Your task to perform on an android device: toggle improve location accuracy Image 0: 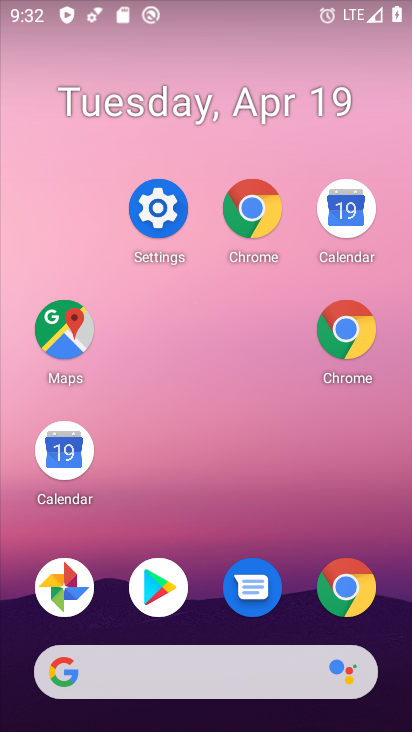
Step 0: click (162, 191)
Your task to perform on an android device: toggle improve location accuracy Image 1: 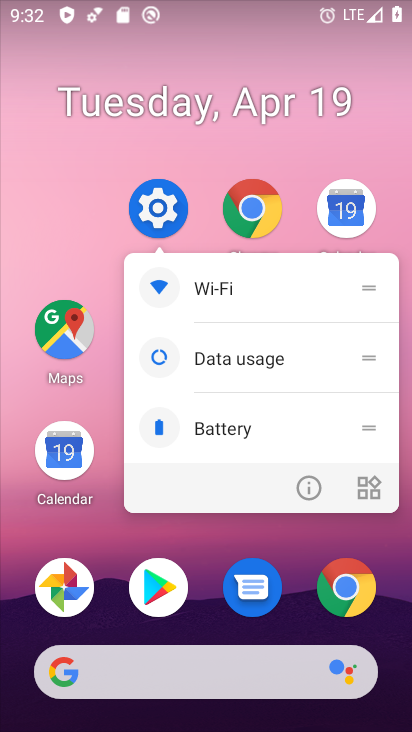
Step 1: click (162, 191)
Your task to perform on an android device: toggle improve location accuracy Image 2: 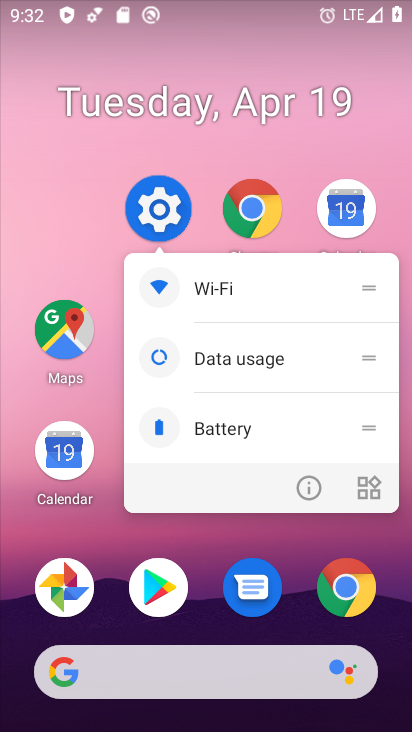
Step 2: click (168, 203)
Your task to perform on an android device: toggle improve location accuracy Image 3: 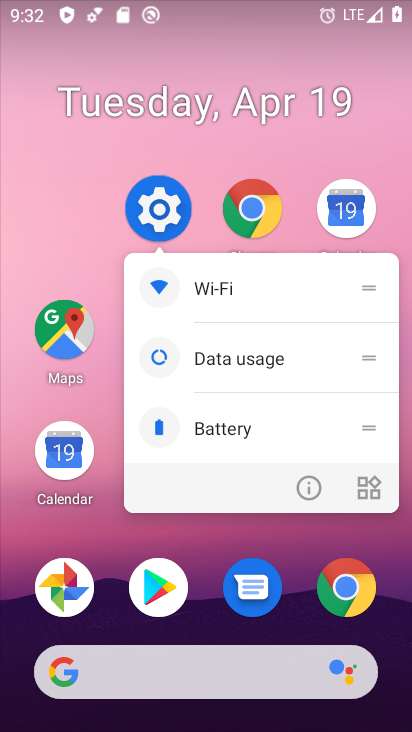
Step 3: click (168, 203)
Your task to perform on an android device: toggle improve location accuracy Image 4: 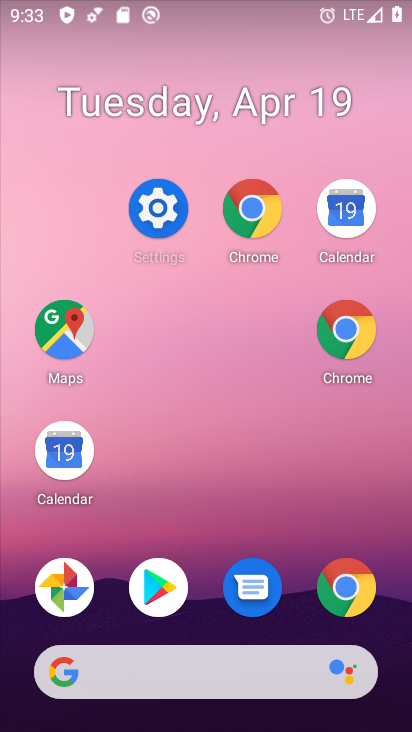
Step 4: click (156, 203)
Your task to perform on an android device: toggle improve location accuracy Image 5: 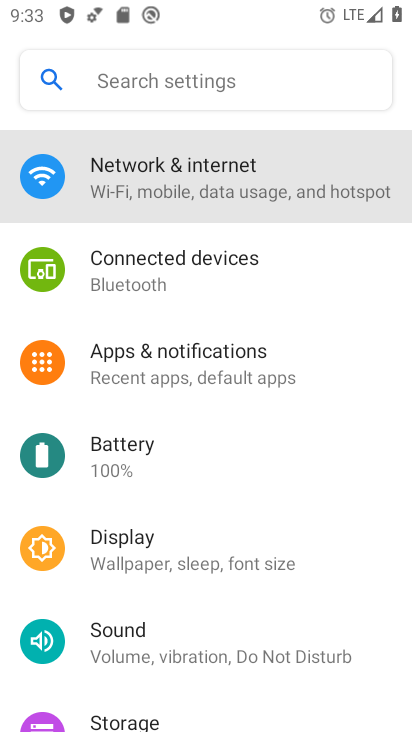
Step 5: click (156, 203)
Your task to perform on an android device: toggle improve location accuracy Image 6: 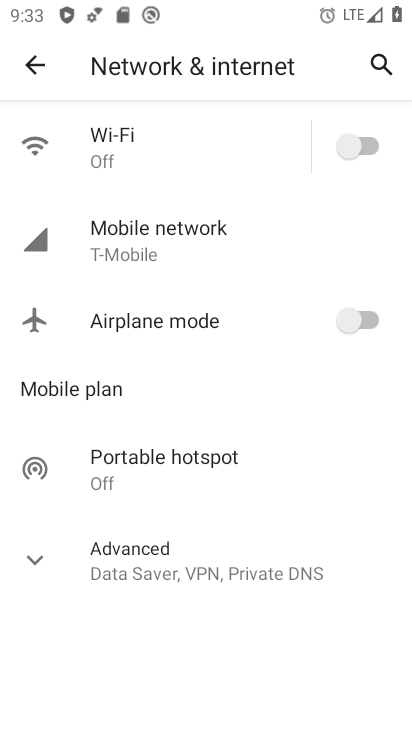
Step 6: click (33, 67)
Your task to perform on an android device: toggle improve location accuracy Image 7: 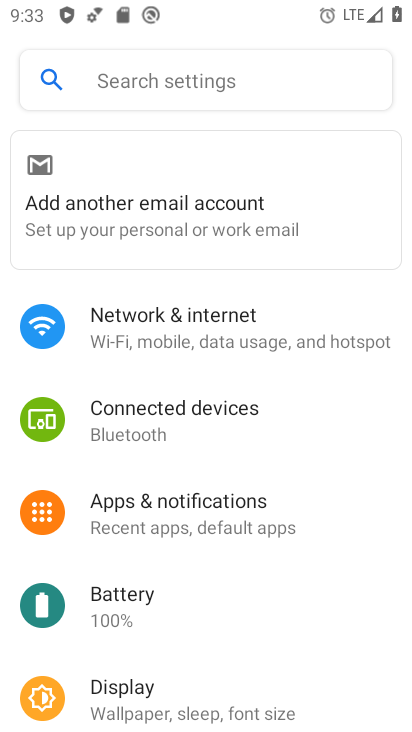
Step 7: drag from (205, 530) to (139, 157)
Your task to perform on an android device: toggle improve location accuracy Image 8: 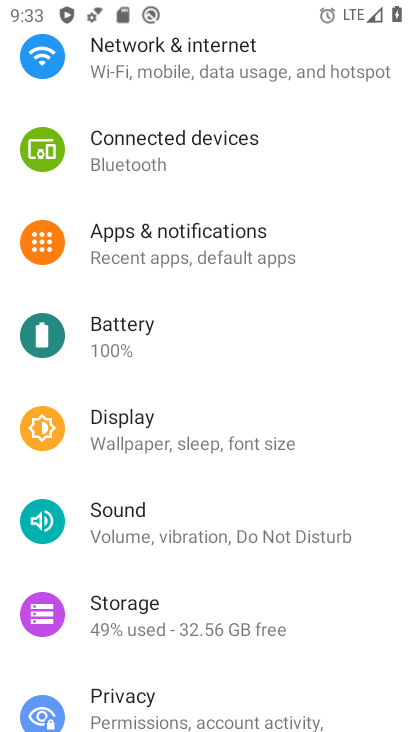
Step 8: drag from (174, 602) to (132, 253)
Your task to perform on an android device: toggle improve location accuracy Image 9: 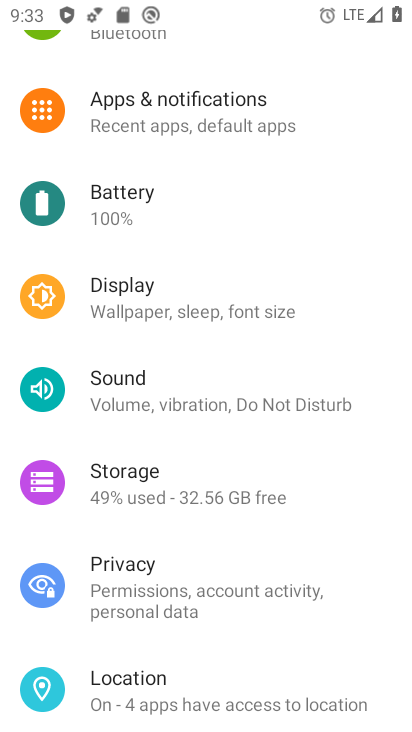
Step 9: click (147, 685)
Your task to perform on an android device: toggle improve location accuracy Image 10: 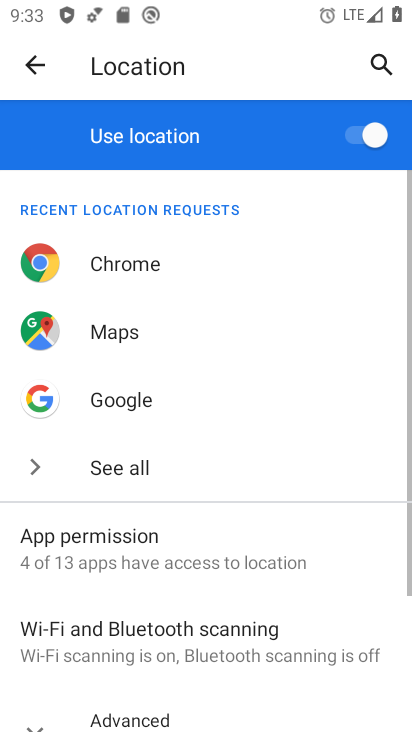
Step 10: drag from (188, 547) to (163, 153)
Your task to perform on an android device: toggle improve location accuracy Image 11: 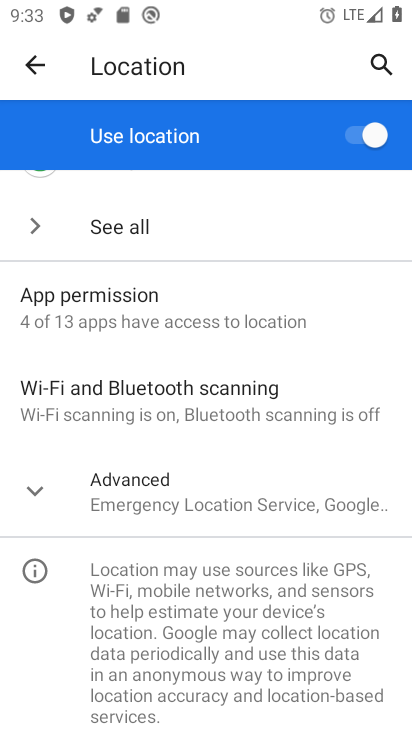
Step 11: click (132, 493)
Your task to perform on an android device: toggle improve location accuracy Image 12: 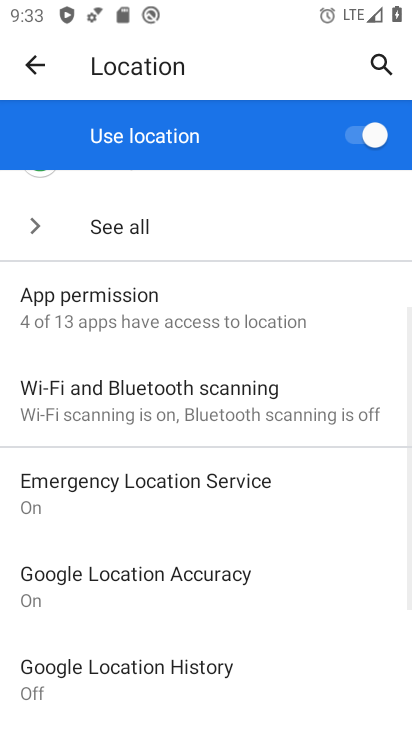
Step 12: drag from (191, 527) to (155, 47)
Your task to perform on an android device: toggle improve location accuracy Image 13: 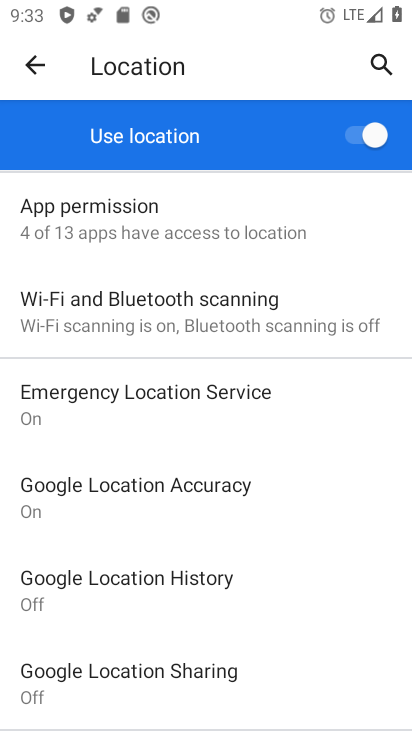
Step 13: click (147, 497)
Your task to perform on an android device: toggle improve location accuracy Image 14: 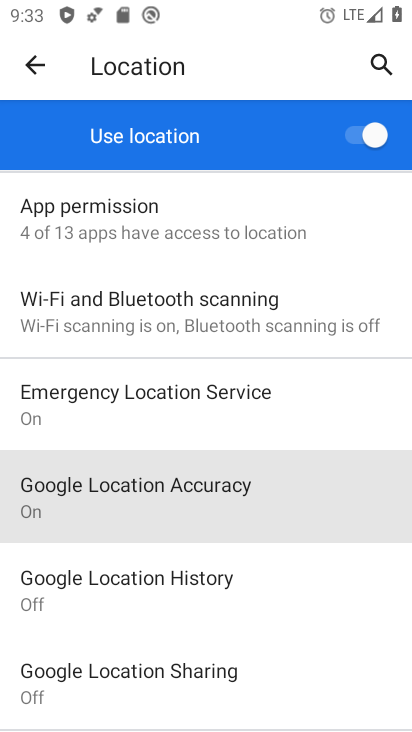
Step 14: click (141, 483)
Your task to perform on an android device: toggle improve location accuracy Image 15: 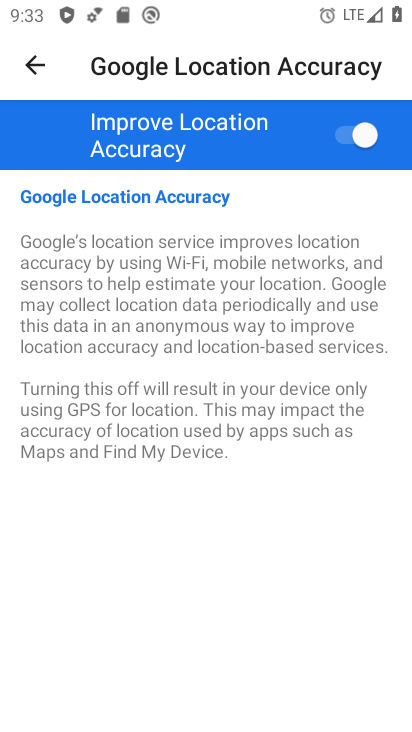
Step 15: click (353, 131)
Your task to perform on an android device: toggle improve location accuracy Image 16: 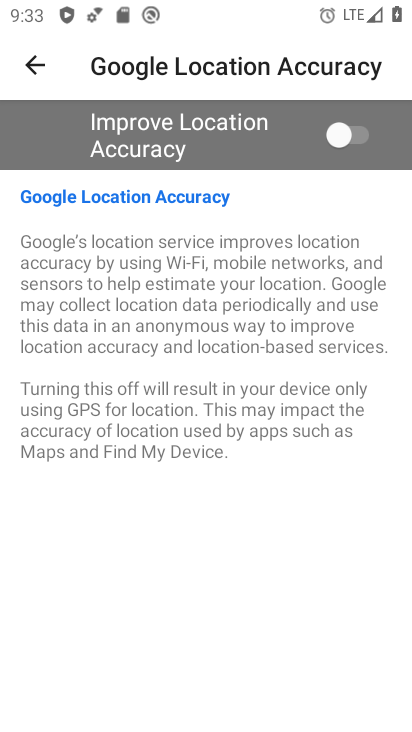
Step 16: task complete